Your task to perform on an android device: Go to wifi settings Image 0: 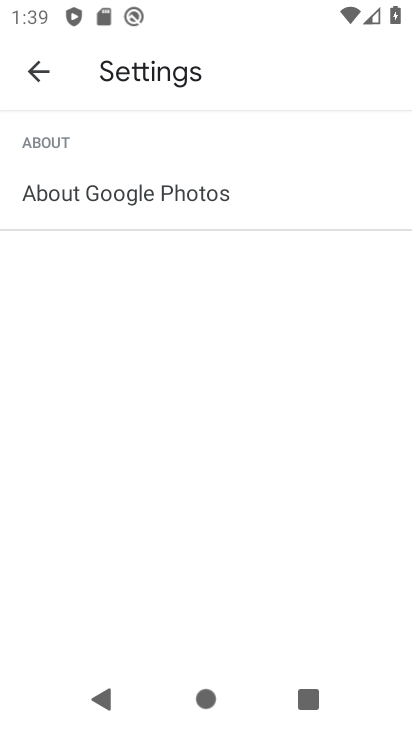
Step 0: press home button
Your task to perform on an android device: Go to wifi settings Image 1: 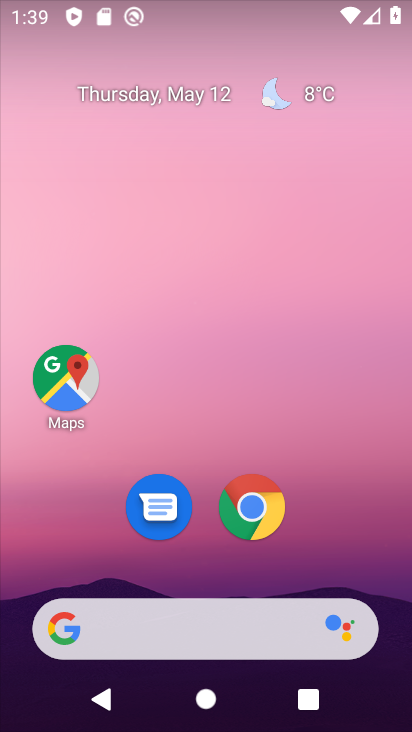
Step 1: drag from (102, 592) to (248, 42)
Your task to perform on an android device: Go to wifi settings Image 2: 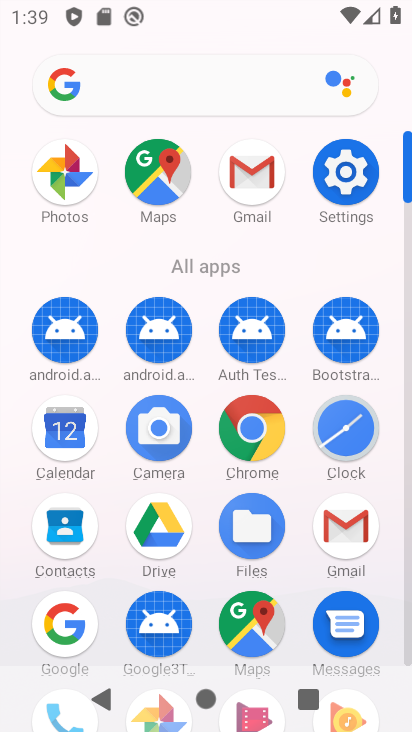
Step 2: click (356, 174)
Your task to perform on an android device: Go to wifi settings Image 3: 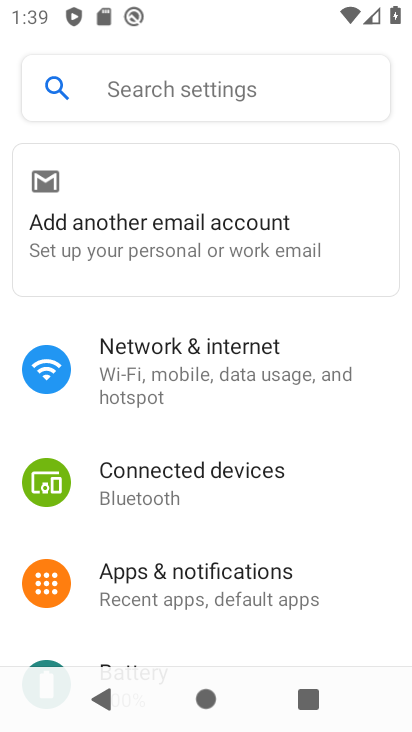
Step 3: task complete